Your task to perform on an android device: turn off priority inbox in the gmail app Image 0: 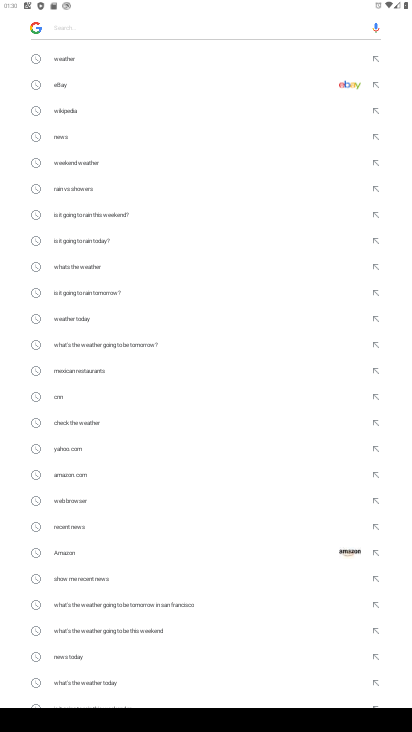
Step 0: press back button
Your task to perform on an android device: turn off priority inbox in the gmail app Image 1: 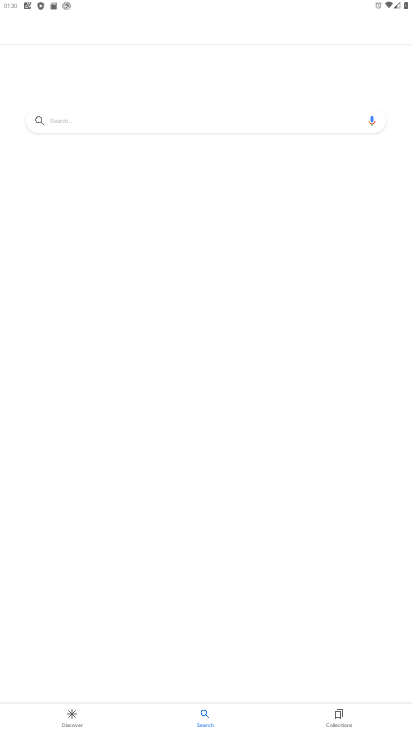
Step 1: press back button
Your task to perform on an android device: turn off priority inbox in the gmail app Image 2: 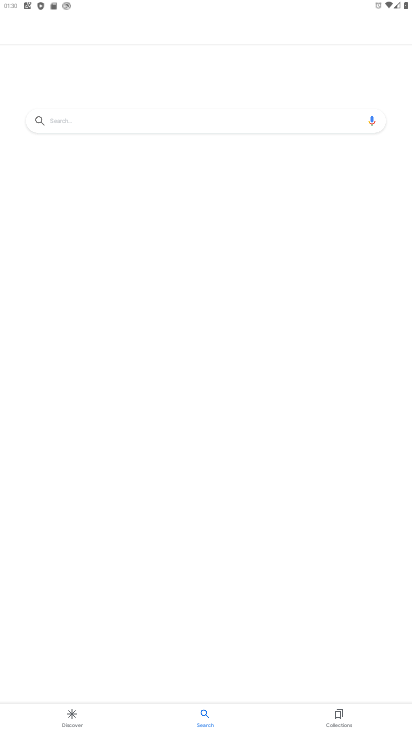
Step 2: press back button
Your task to perform on an android device: turn off priority inbox in the gmail app Image 3: 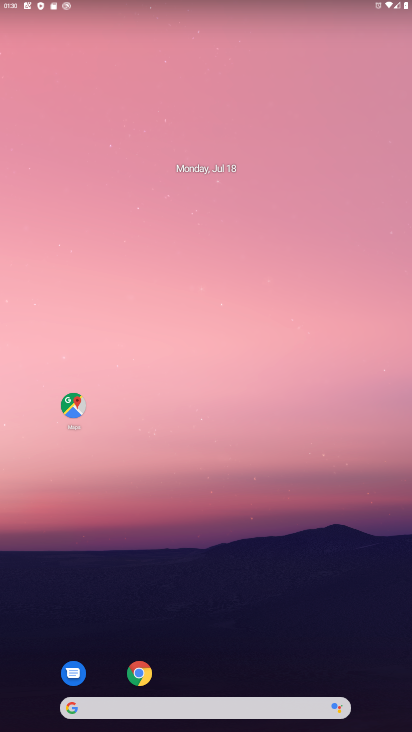
Step 3: drag from (219, 663) to (219, 240)
Your task to perform on an android device: turn off priority inbox in the gmail app Image 4: 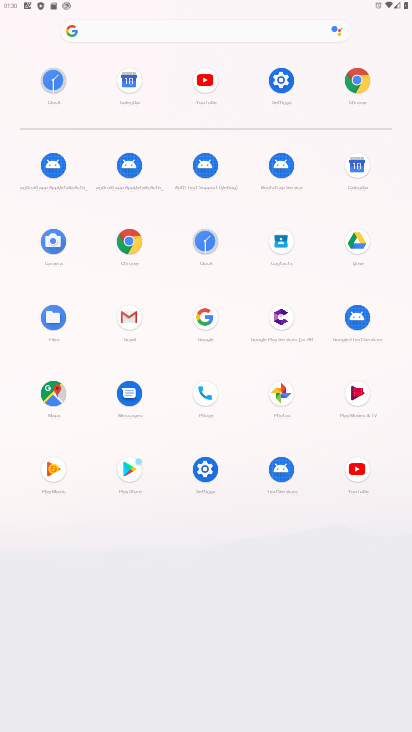
Step 4: click (283, 93)
Your task to perform on an android device: turn off priority inbox in the gmail app Image 5: 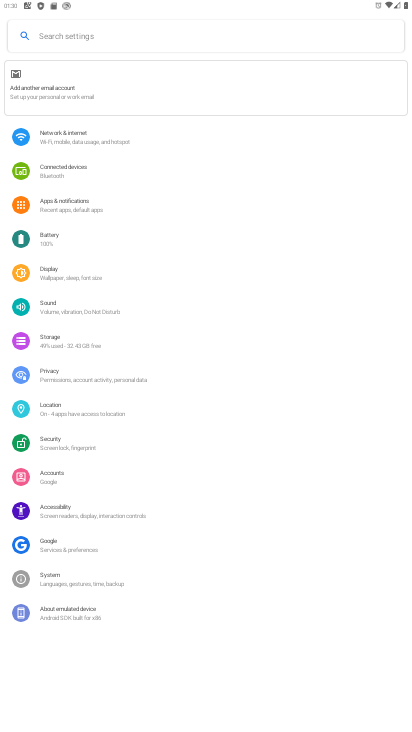
Step 5: press home button
Your task to perform on an android device: turn off priority inbox in the gmail app Image 6: 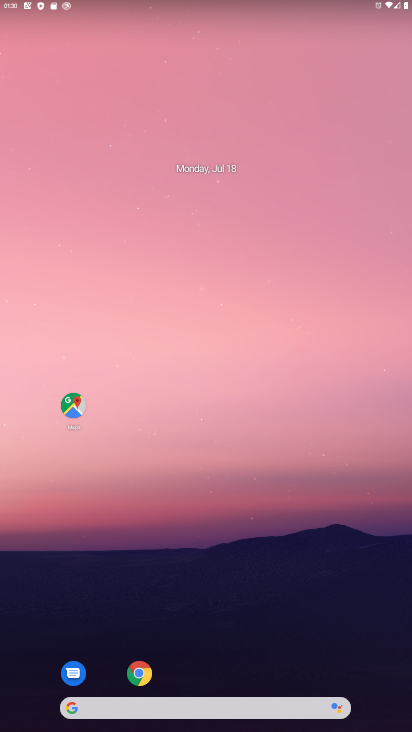
Step 6: drag from (223, 636) to (232, 207)
Your task to perform on an android device: turn off priority inbox in the gmail app Image 7: 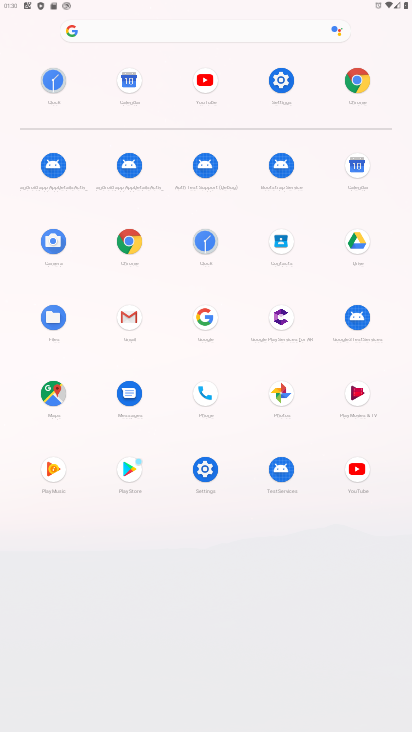
Step 7: click (141, 313)
Your task to perform on an android device: turn off priority inbox in the gmail app Image 8: 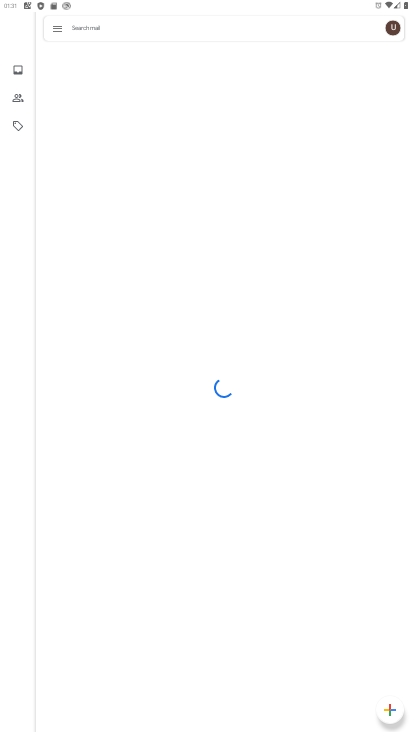
Step 8: click (61, 31)
Your task to perform on an android device: turn off priority inbox in the gmail app Image 9: 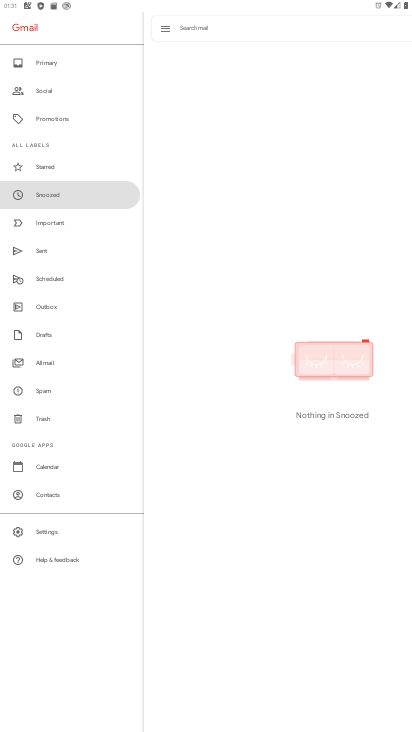
Step 9: click (59, 525)
Your task to perform on an android device: turn off priority inbox in the gmail app Image 10: 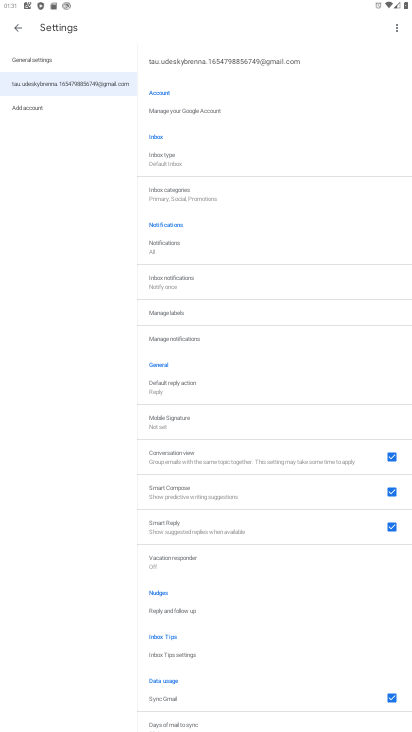
Step 10: click (203, 160)
Your task to perform on an android device: turn off priority inbox in the gmail app Image 11: 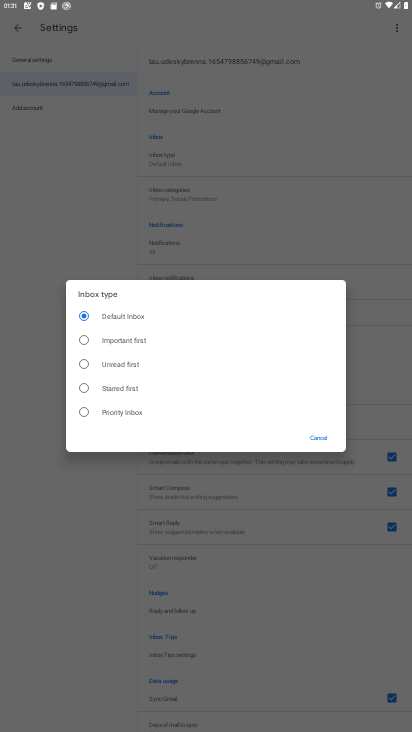
Step 11: click (132, 412)
Your task to perform on an android device: turn off priority inbox in the gmail app Image 12: 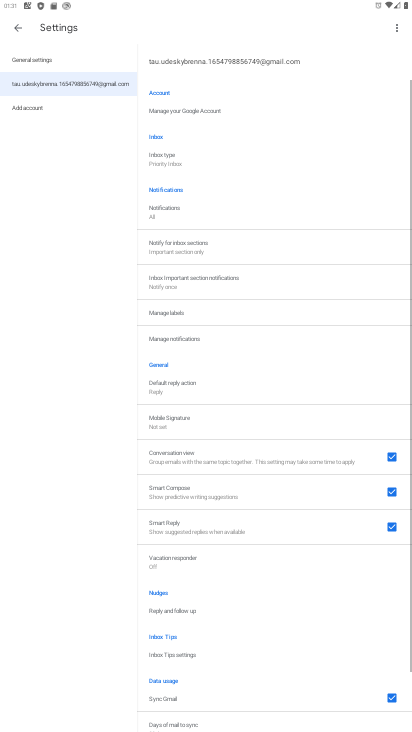
Step 12: task complete